Your task to perform on an android device: toggle notifications settings in the gmail app Image 0: 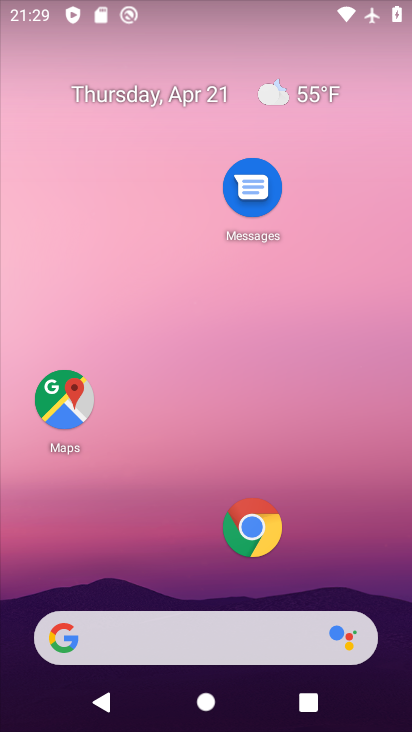
Step 0: drag from (155, 642) to (236, 92)
Your task to perform on an android device: toggle notifications settings in the gmail app Image 1: 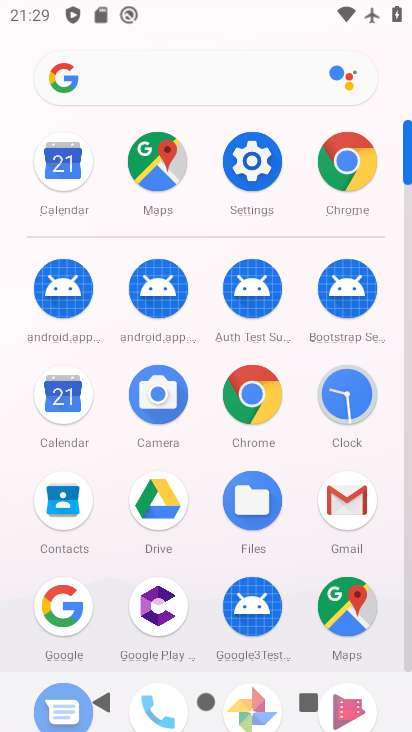
Step 1: click (352, 513)
Your task to perform on an android device: toggle notifications settings in the gmail app Image 2: 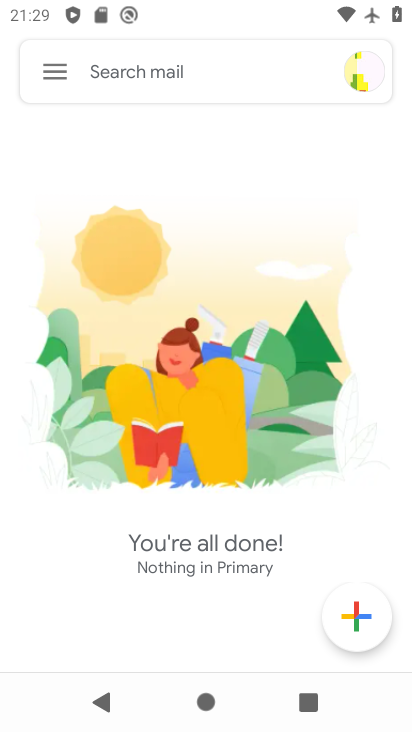
Step 2: click (53, 79)
Your task to perform on an android device: toggle notifications settings in the gmail app Image 3: 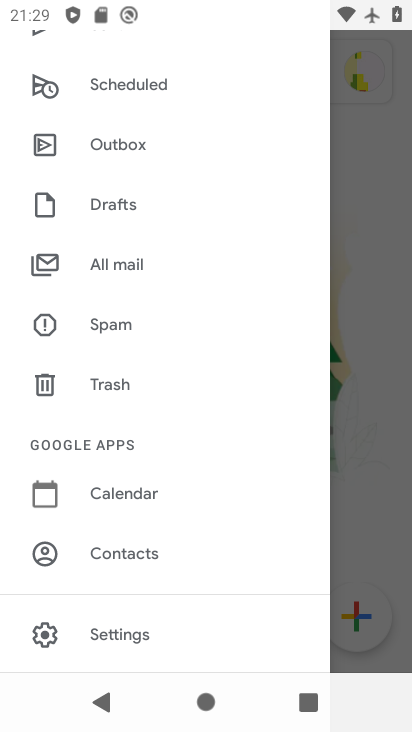
Step 3: click (135, 635)
Your task to perform on an android device: toggle notifications settings in the gmail app Image 4: 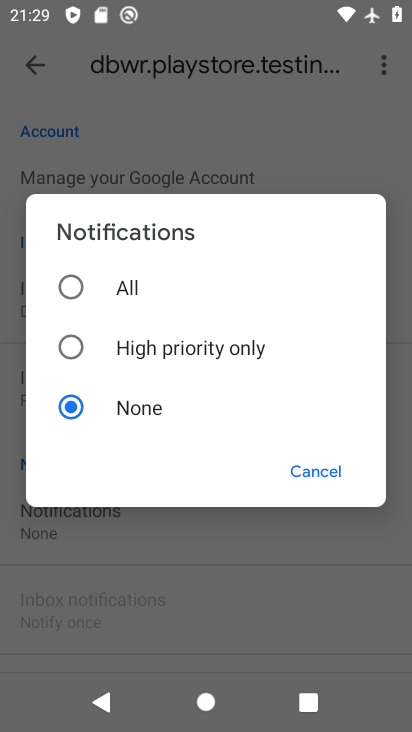
Step 4: click (75, 285)
Your task to perform on an android device: toggle notifications settings in the gmail app Image 5: 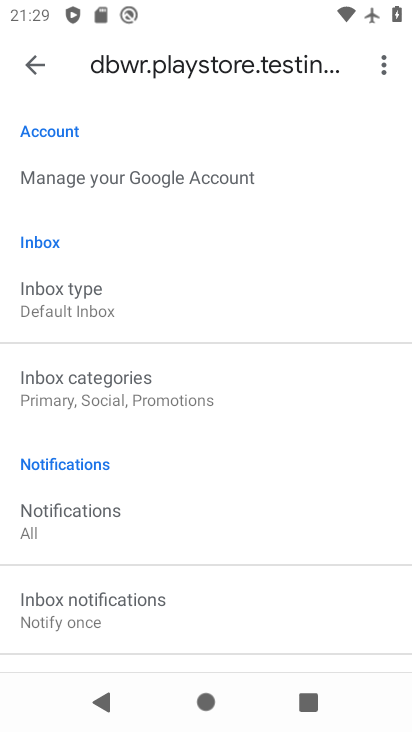
Step 5: task complete